Your task to perform on an android device: find snoozed emails in the gmail app Image 0: 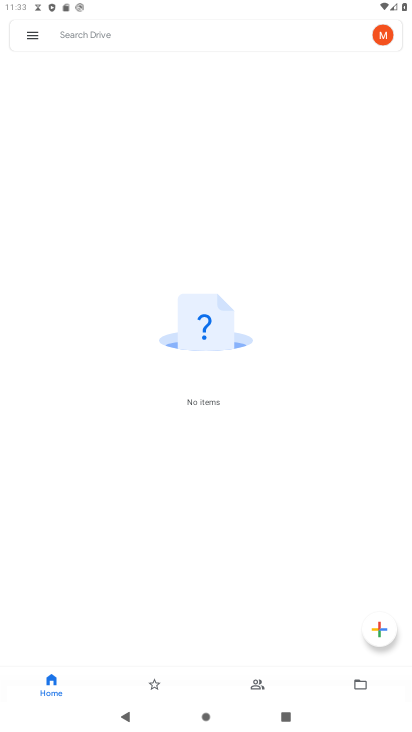
Step 0: press home button
Your task to perform on an android device: find snoozed emails in the gmail app Image 1: 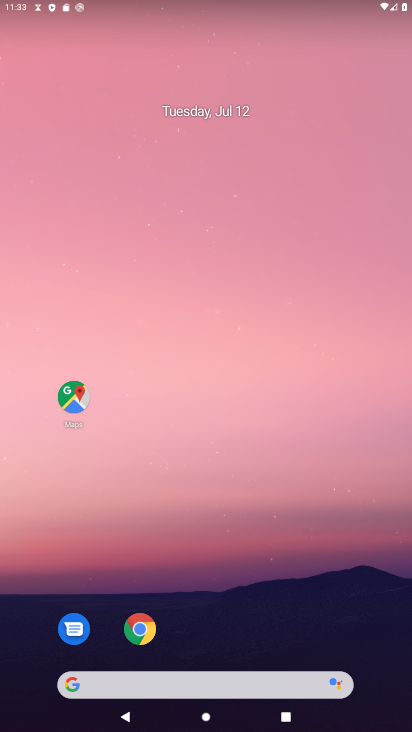
Step 1: drag from (264, 566) to (284, 158)
Your task to perform on an android device: find snoozed emails in the gmail app Image 2: 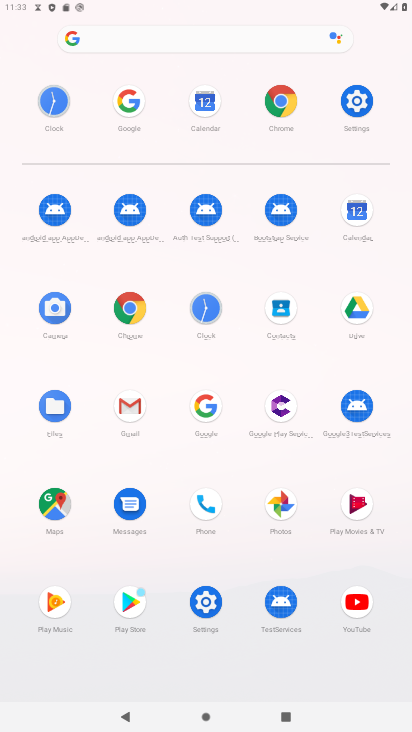
Step 2: click (137, 410)
Your task to perform on an android device: find snoozed emails in the gmail app Image 3: 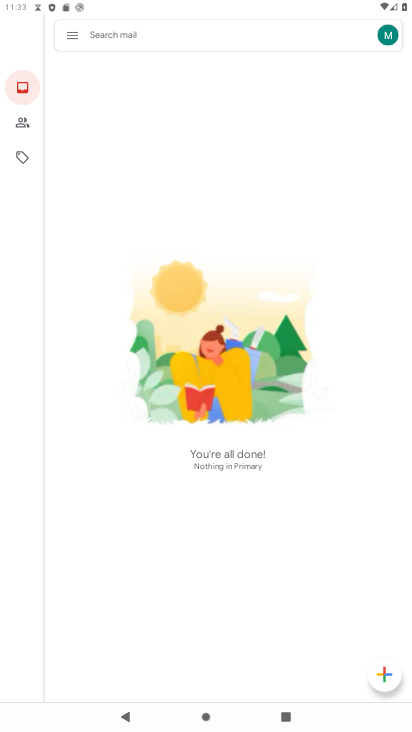
Step 3: click (68, 39)
Your task to perform on an android device: find snoozed emails in the gmail app Image 4: 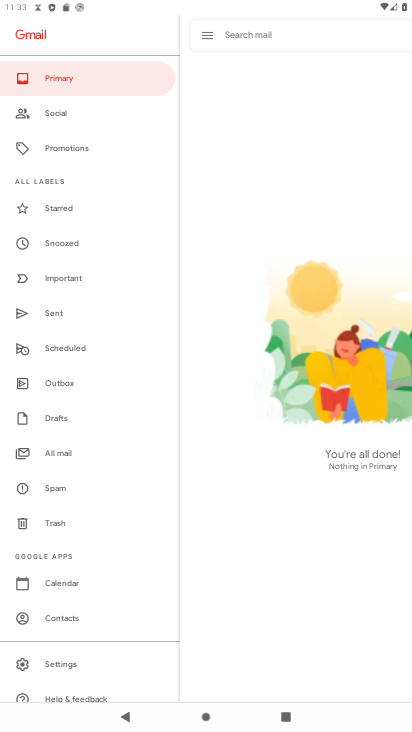
Step 4: click (52, 244)
Your task to perform on an android device: find snoozed emails in the gmail app Image 5: 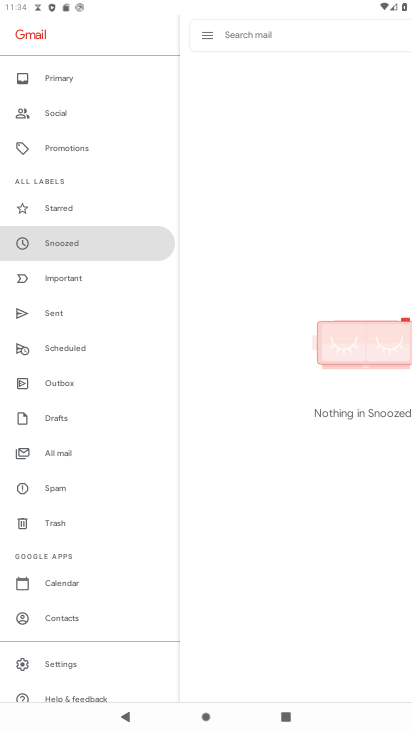
Step 5: click (88, 238)
Your task to perform on an android device: find snoozed emails in the gmail app Image 6: 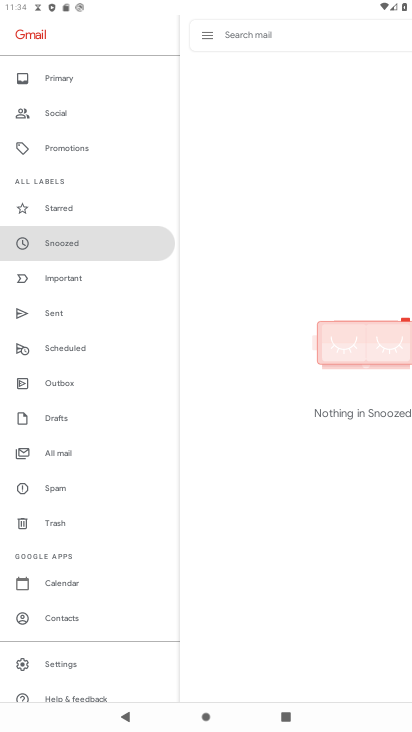
Step 6: task complete